Your task to perform on an android device: Toggle the flashlight Image 0: 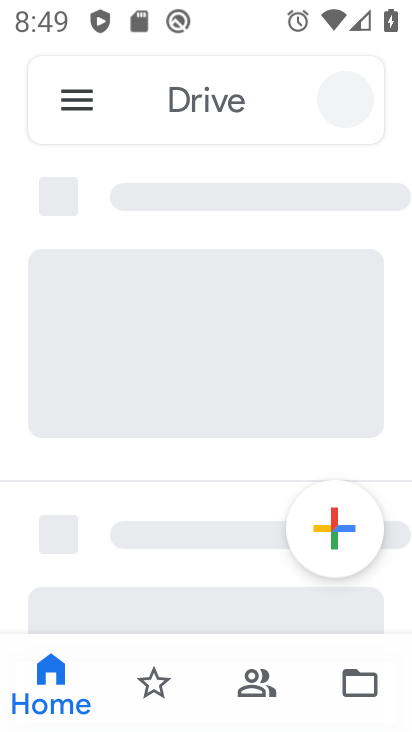
Step 0: press home button
Your task to perform on an android device: Toggle the flashlight Image 1: 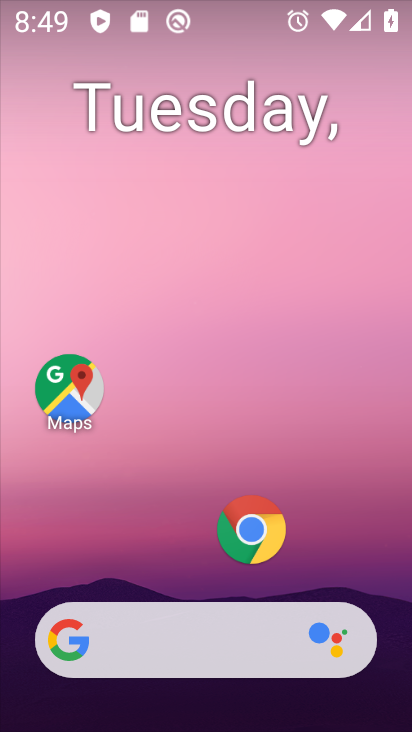
Step 1: drag from (198, 576) to (214, 35)
Your task to perform on an android device: Toggle the flashlight Image 2: 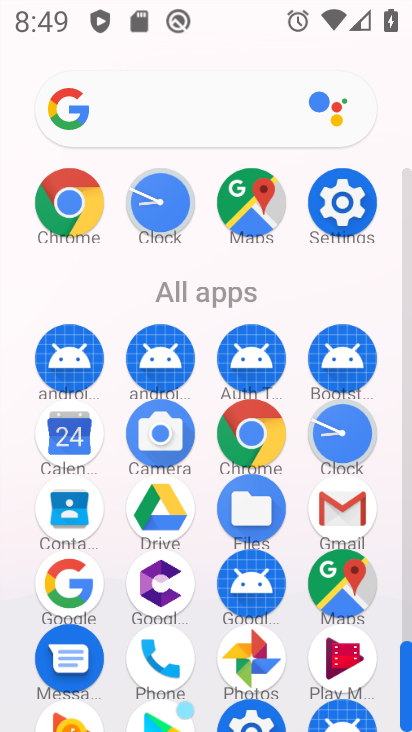
Step 2: click (345, 200)
Your task to perform on an android device: Toggle the flashlight Image 3: 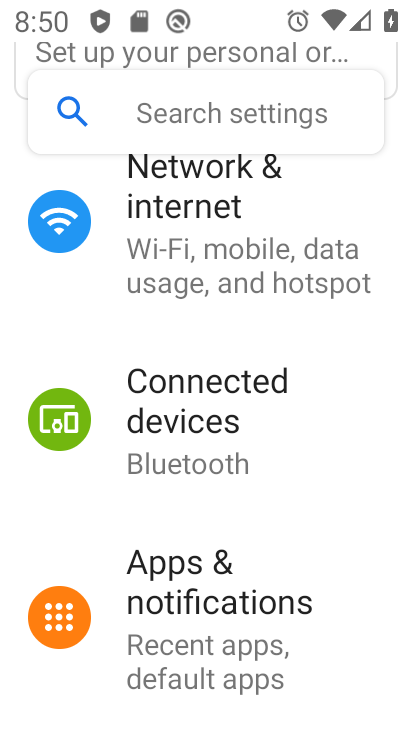
Step 3: click (167, 109)
Your task to perform on an android device: Toggle the flashlight Image 4: 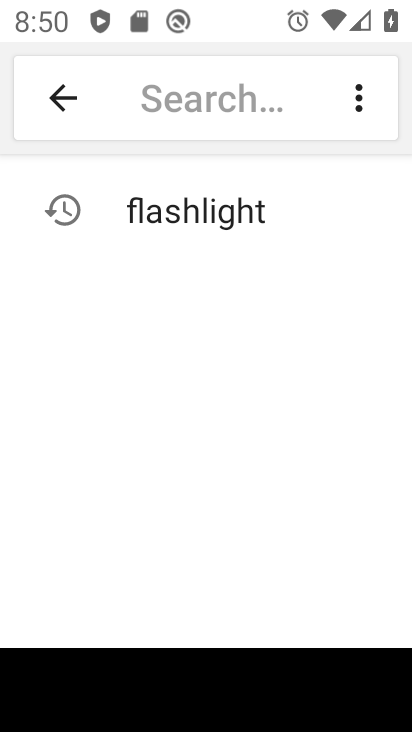
Step 4: click (144, 224)
Your task to perform on an android device: Toggle the flashlight Image 5: 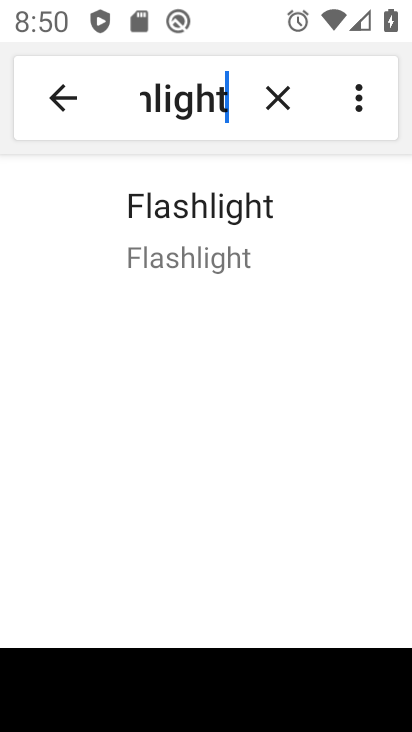
Step 5: click (172, 222)
Your task to perform on an android device: Toggle the flashlight Image 6: 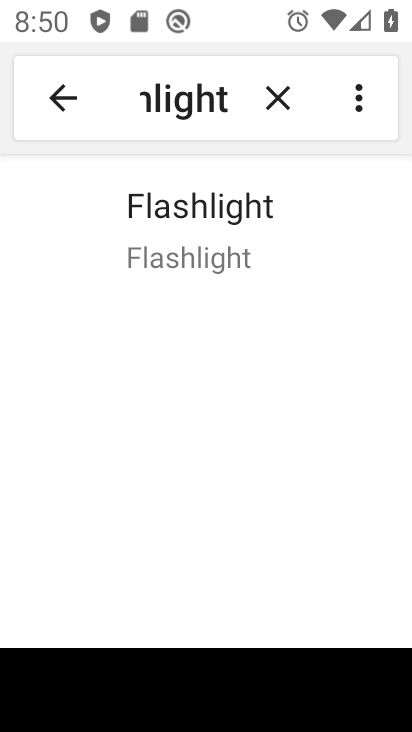
Step 6: task complete